Your task to perform on an android device: visit the assistant section in the google photos Image 0: 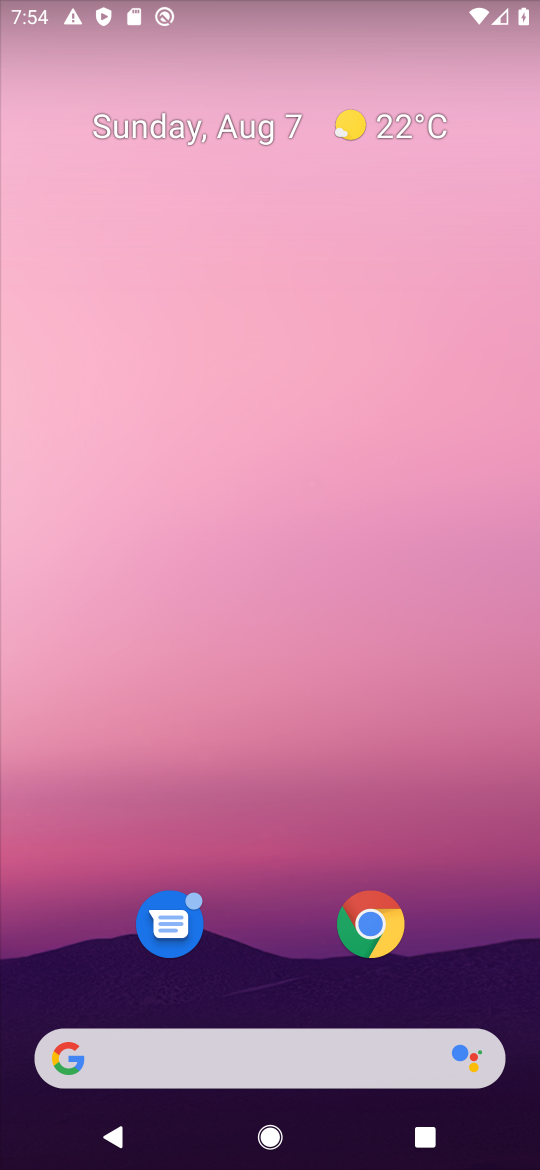
Step 0: drag from (299, 774) to (319, 0)
Your task to perform on an android device: visit the assistant section in the google photos Image 1: 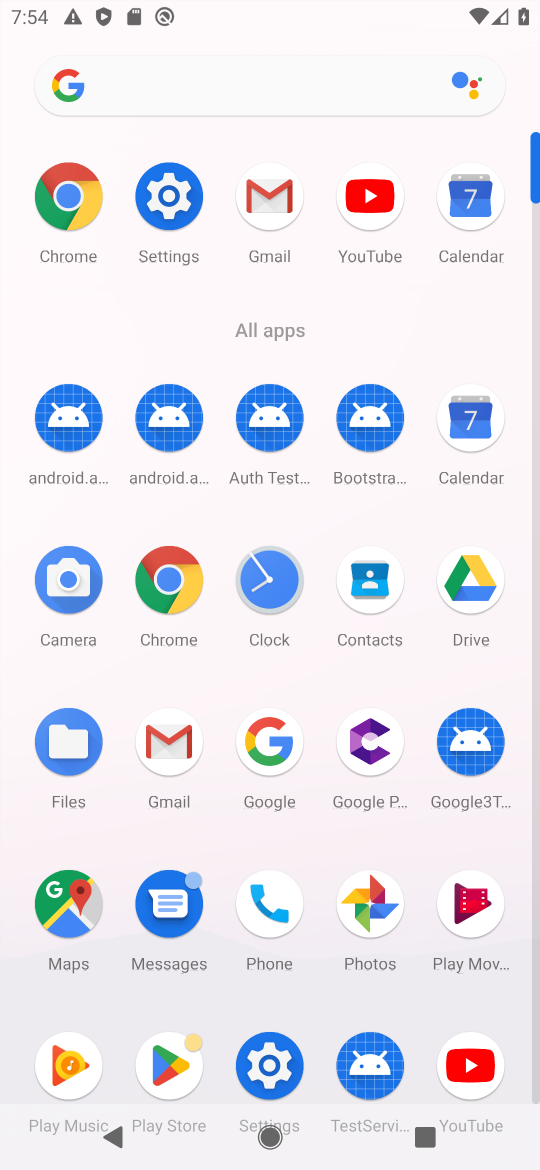
Step 1: click (363, 898)
Your task to perform on an android device: visit the assistant section in the google photos Image 2: 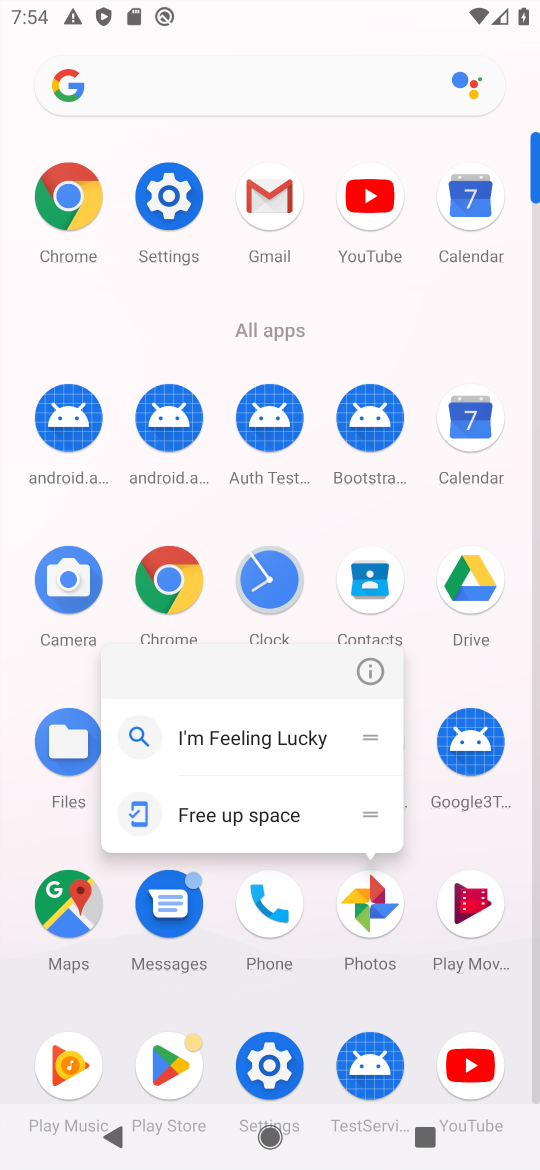
Step 2: click (363, 898)
Your task to perform on an android device: visit the assistant section in the google photos Image 3: 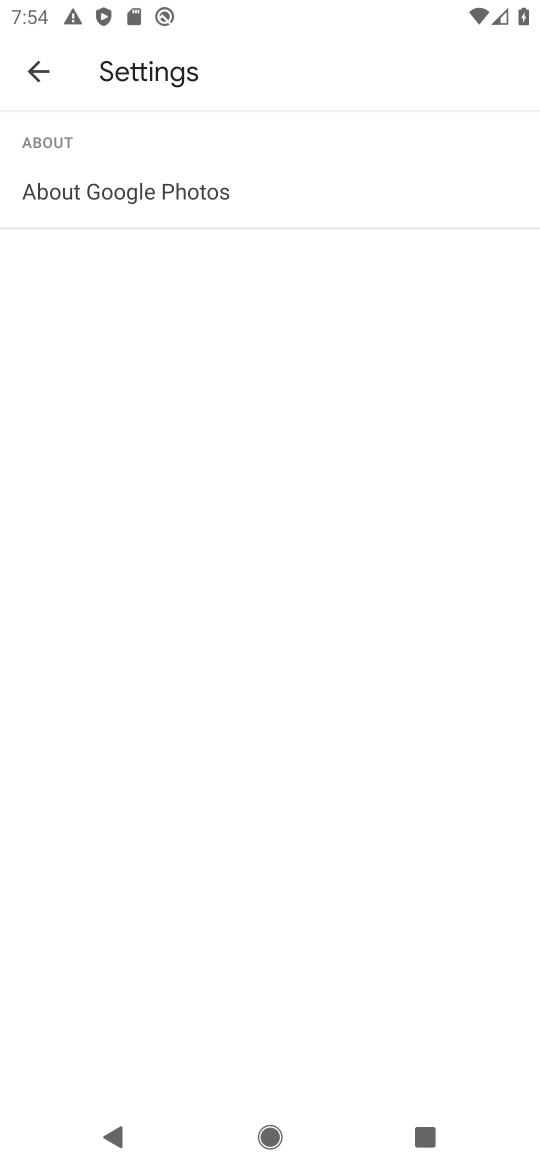
Step 3: click (38, 73)
Your task to perform on an android device: visit the assistant section in the google photos Image 4: 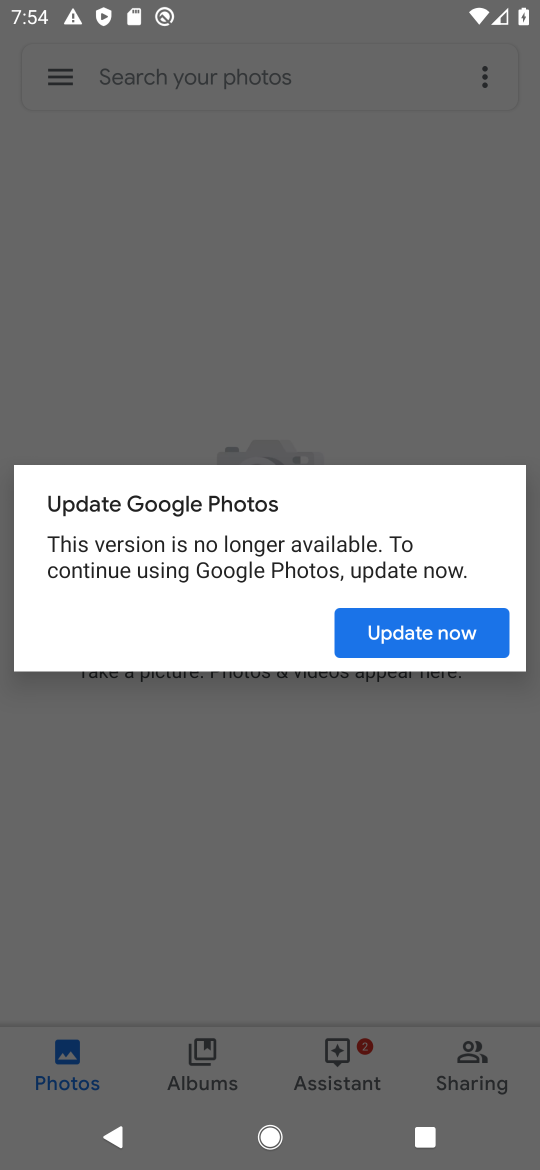
Step 4: click (413, 635)
Your task to perform on an android device: visit the assistant section in the google photos Image 5: 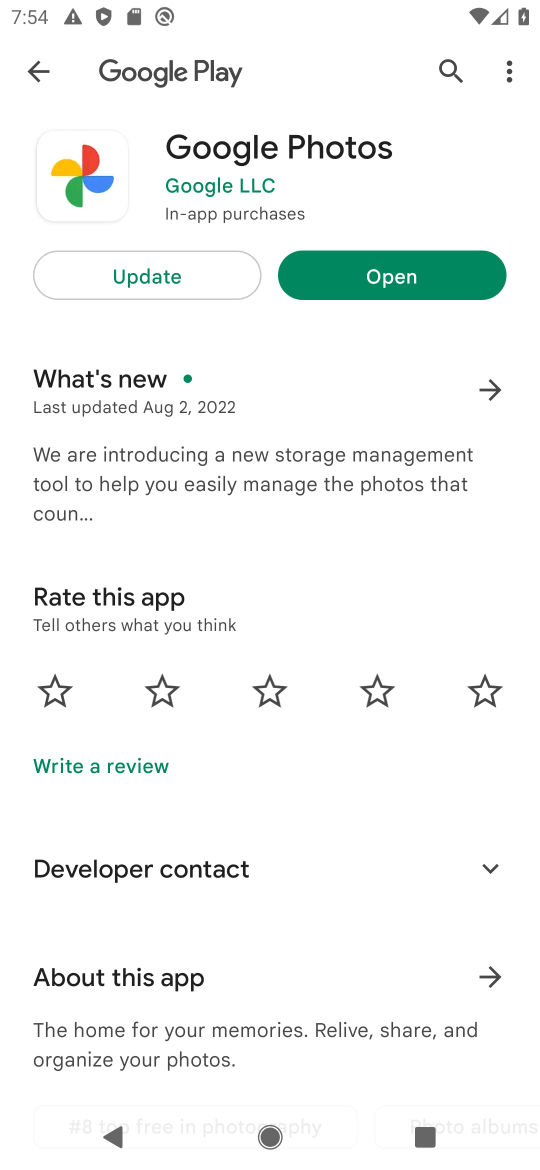
Step 5: click (428, 276)
Your task to perform on an android device: visit the assistant section in the google photos Image 6: 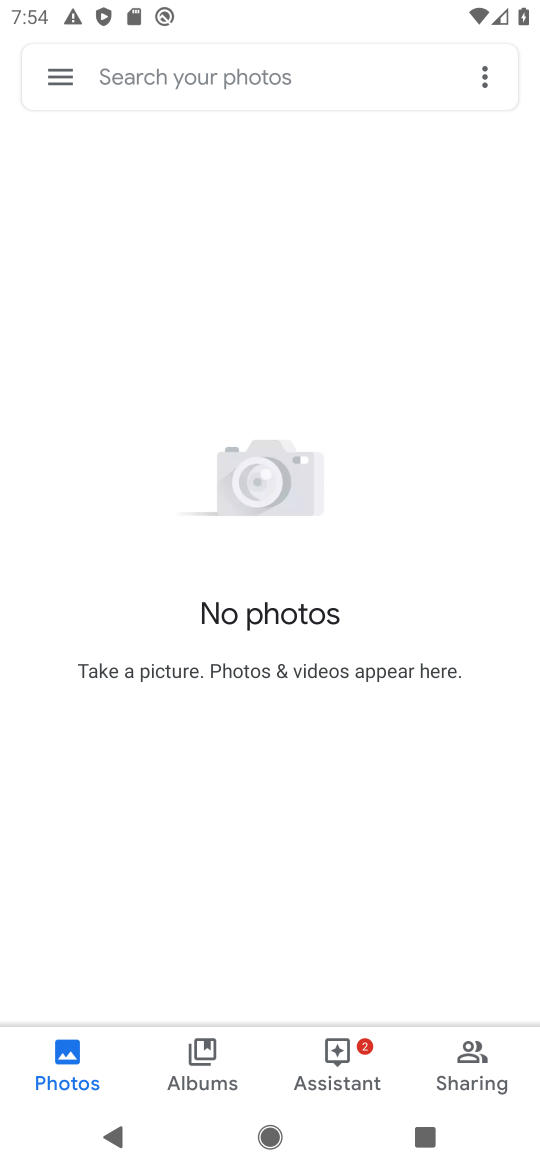
Step 6: click (344, 1063)
Your task to perform on an android device: visit the assistant section in the google photos Image 7: 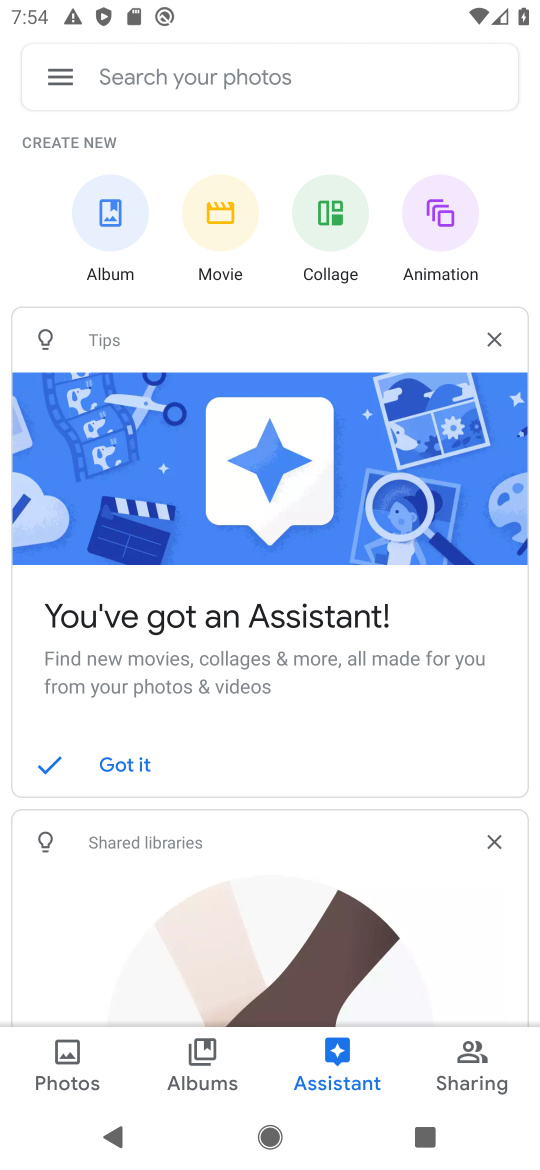
Step 7: task complete